Your task to perform on an android device: Search for seafood restaurants on Google Maps Image 0: 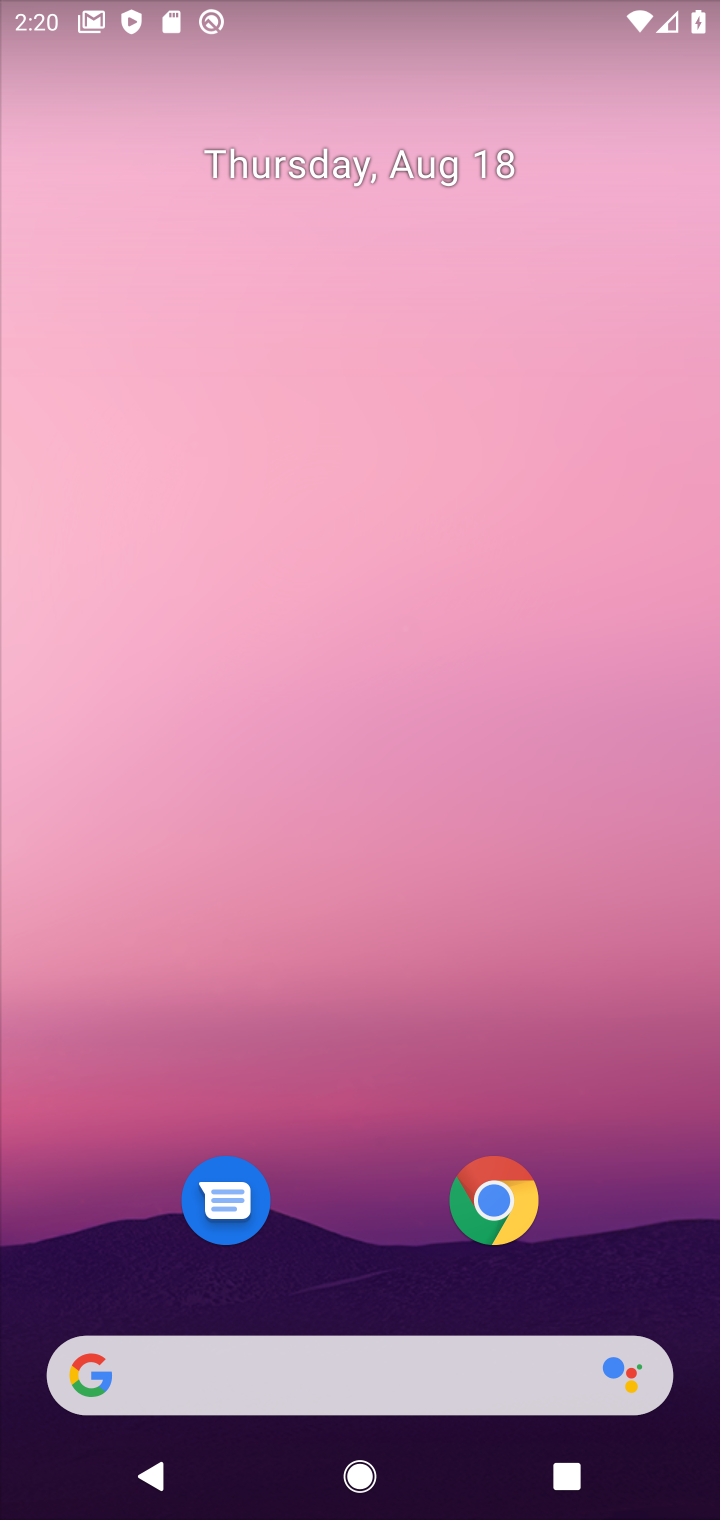
Step 0: drag from (343, 1114) to (707, 17)
Your task to perform on an android device: Search for seafood restaurants on Google Maps Image 1: 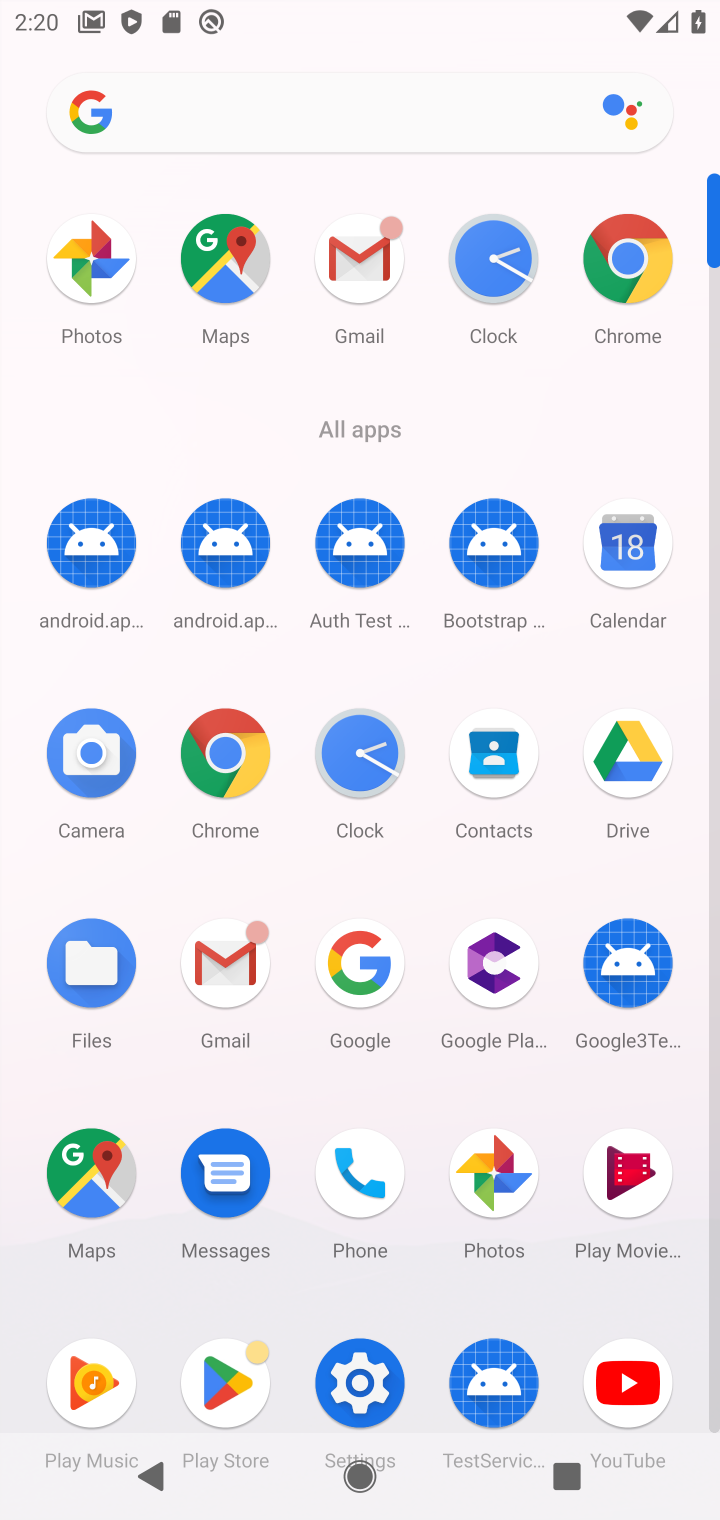
Step 1: click (111, 1173)
Your task to perform on an android device: Search for seafood restaurants on Google Maps Image 2: 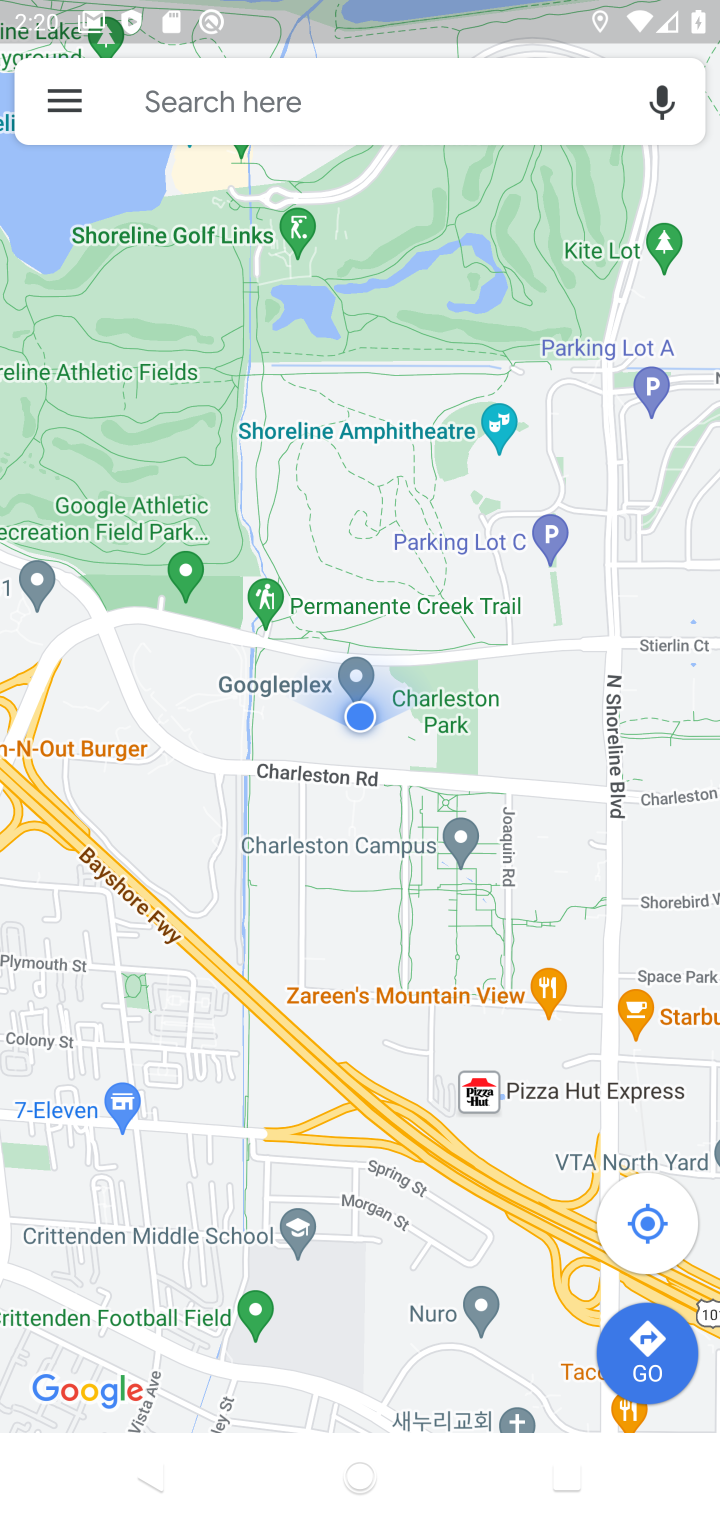
Step 2: click (259, 109)
Your task to perform on an android device: Search for seafood restaurants on Google Maps Image 3: 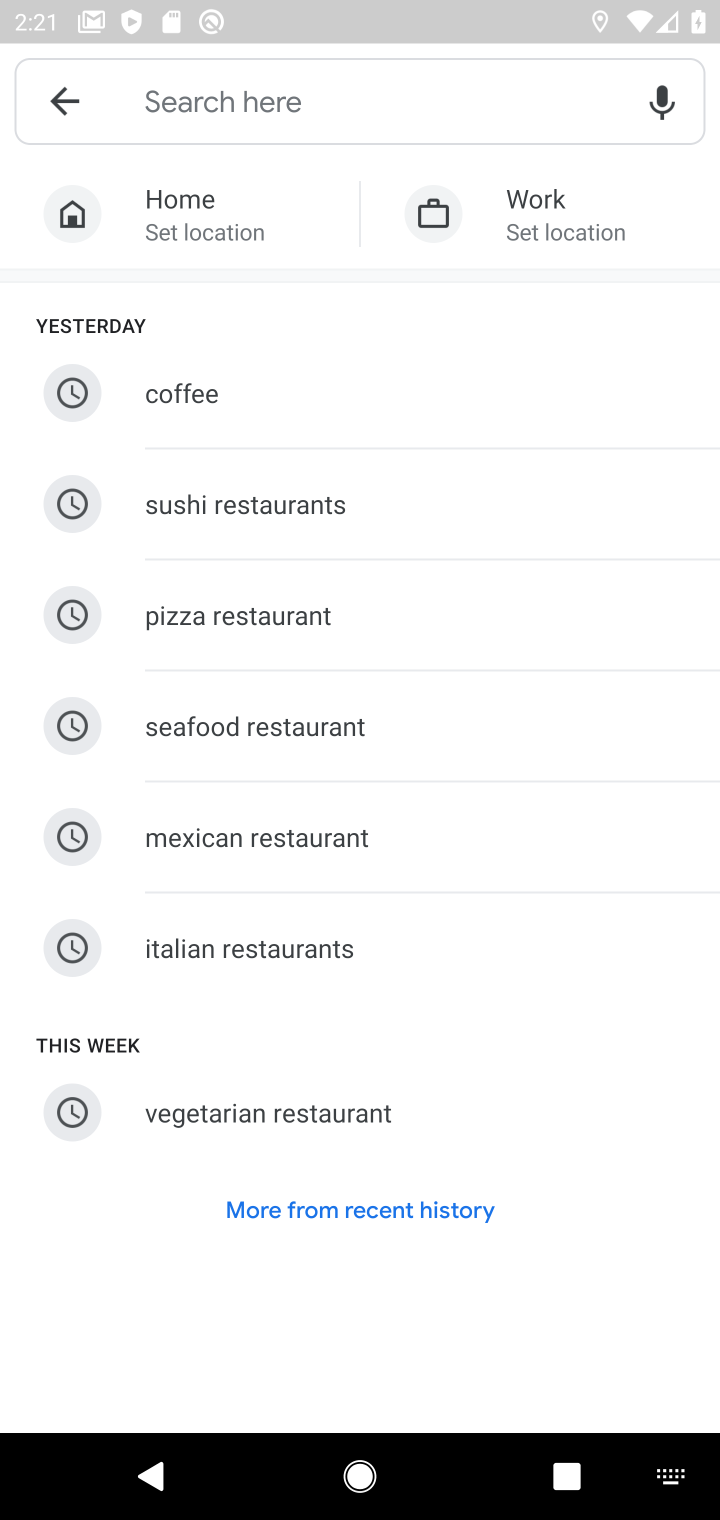
Step 3: type "seafood restaurants"
Your task to perform on an android device: Search for seafood restaurants on Google Maps Image 4: 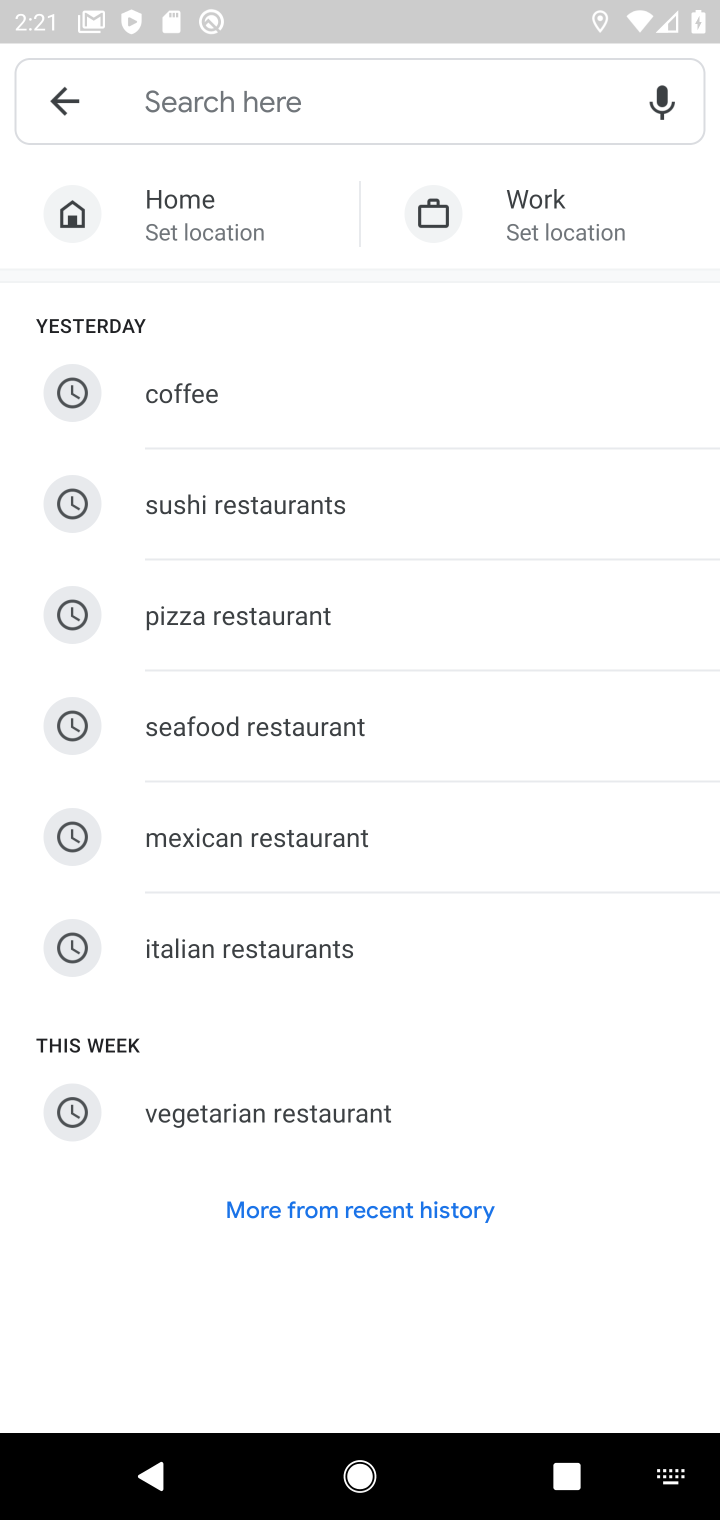
Step 4: click (152, 94)
Your task to perform on an android device: Search for seafood restaurants on Google Maps Image 5: 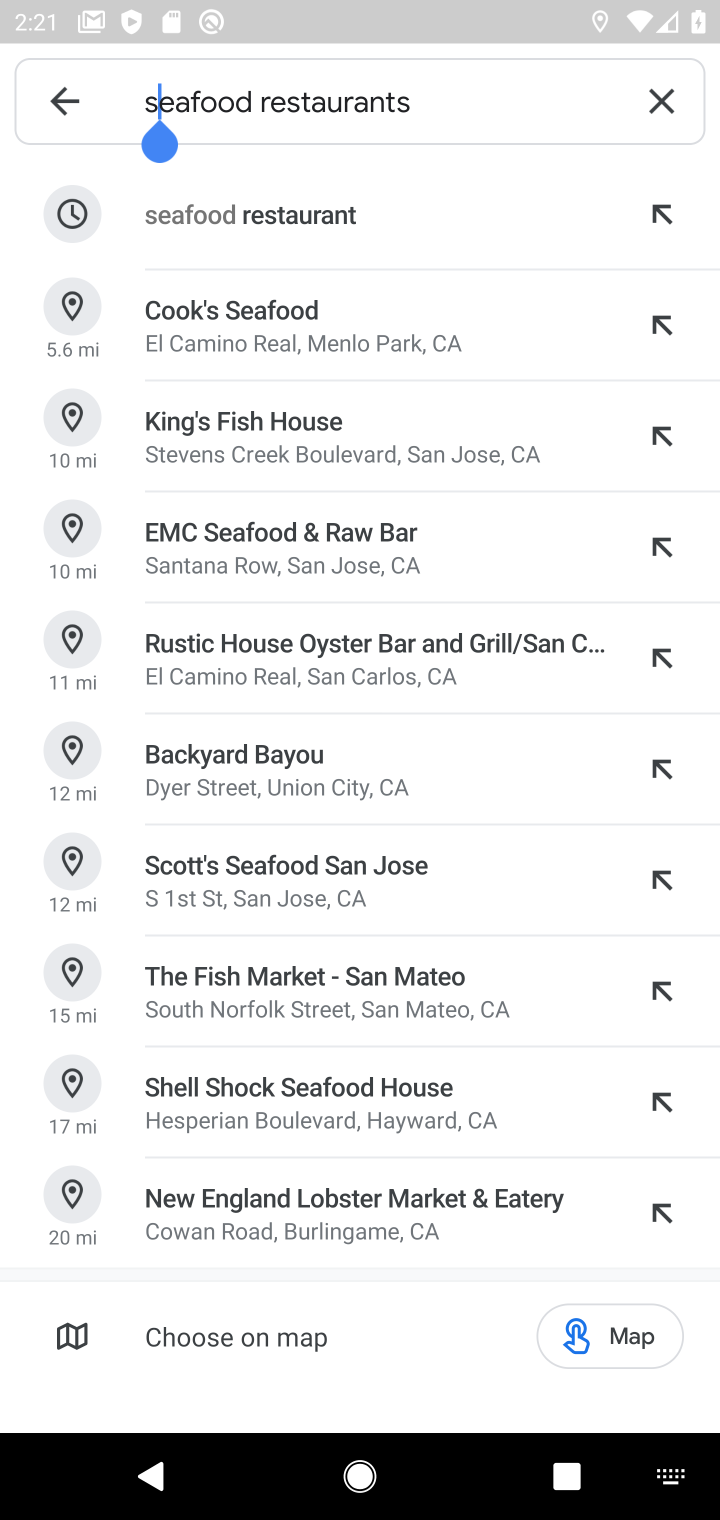
Step 5: click (238, 210)
Your task to perform on an android device: Search for seafood restaurants on Google Maps Image 6: 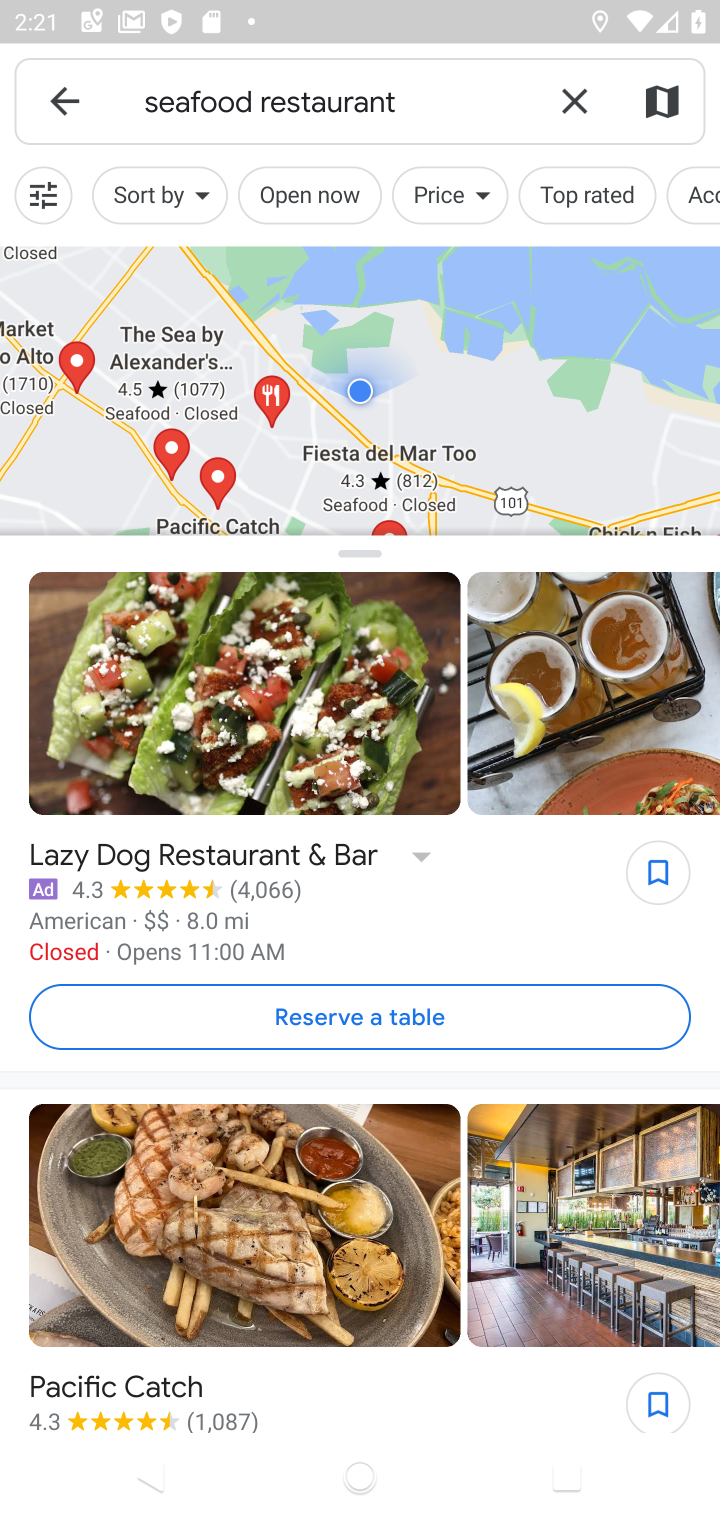
Step 6: task complete